Your task to perform on an android device: Open Google Image 0: 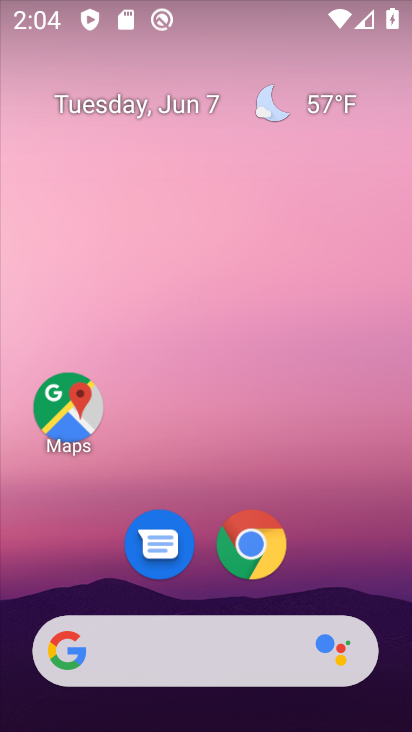
Step 0: drag from (301, 559) to (338, 210)
Your task to perform on an android device: Open Google Image 1: 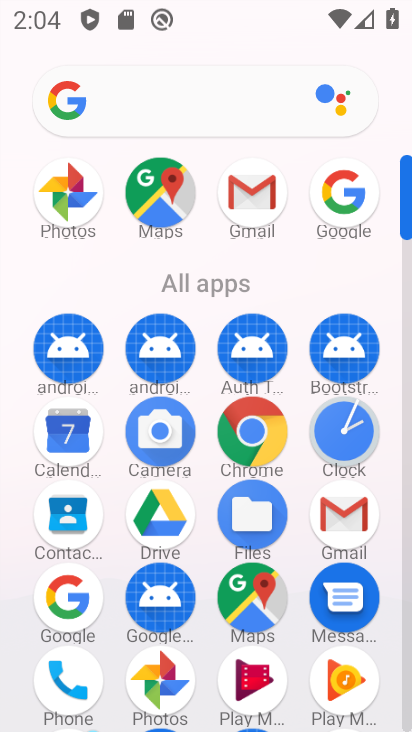
Step 1: click (57, 603)
Your task to perform on an android device: Open Google Image 2: 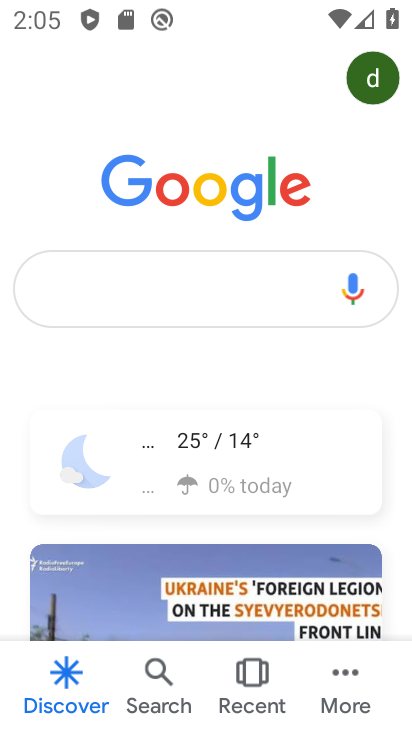
Step 2: task complete